Your task to perform on an android device: read, delete, or share a saved page in the chrome app Image 0: 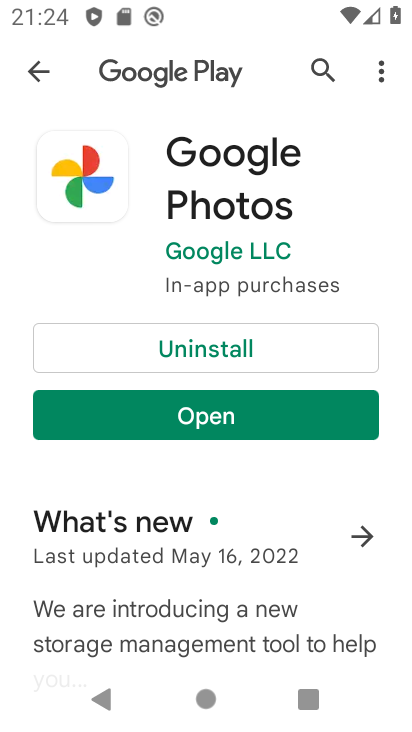
Step 0: press home button
Your task to perform on an android device: read, delete, or share a saved page in the chrome app Image 1: 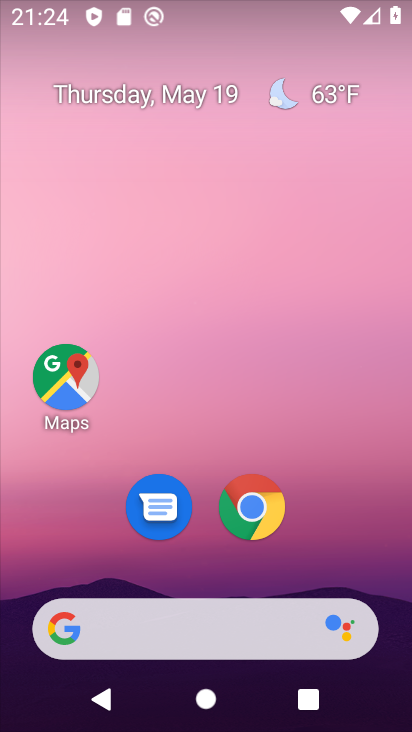
Step 1: click (268, 500)
Your task to perform on an android device: read, delete, or share a saved page in the chrome app Image 2: 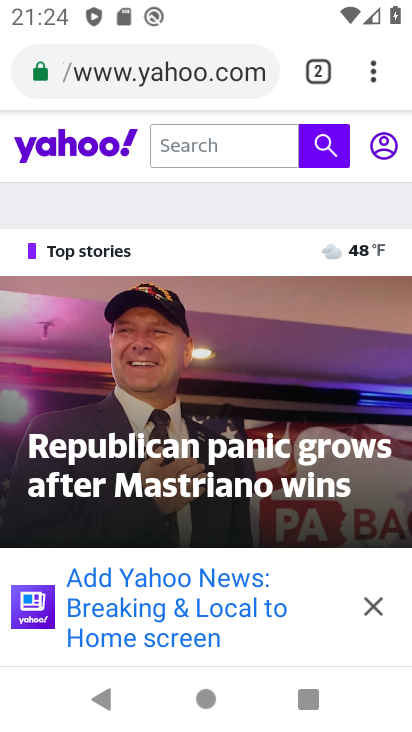
Step 2: click (386, 78)
Your task to perform on an android device: read, delete, or share a saved page in the chrome app Image 3: 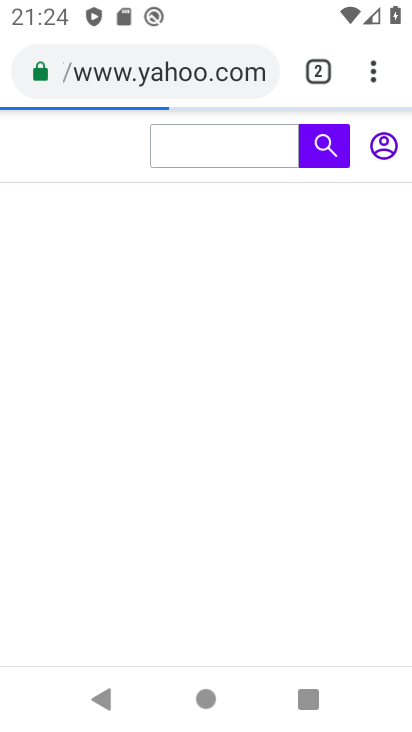
Step 3: click (386, 78)
Your task to perform on an android device: read, delete, or share a saved page in the chrome app Image 4: 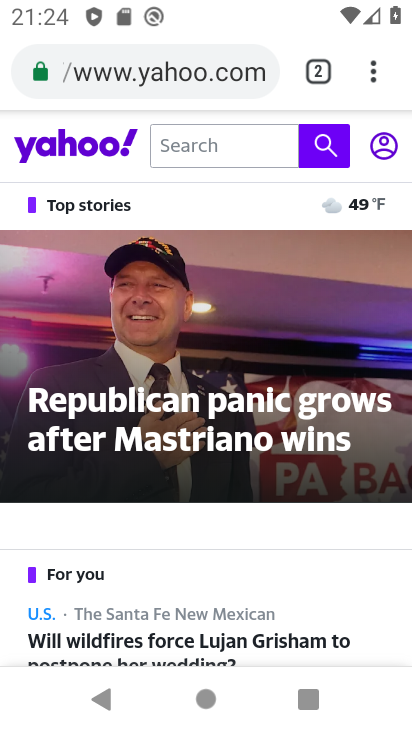
Step 4: drag from (386, 78) to (253, 470)
Your task to perform on an android device: read, delete, or share a saved page in the chrome app Image 5: 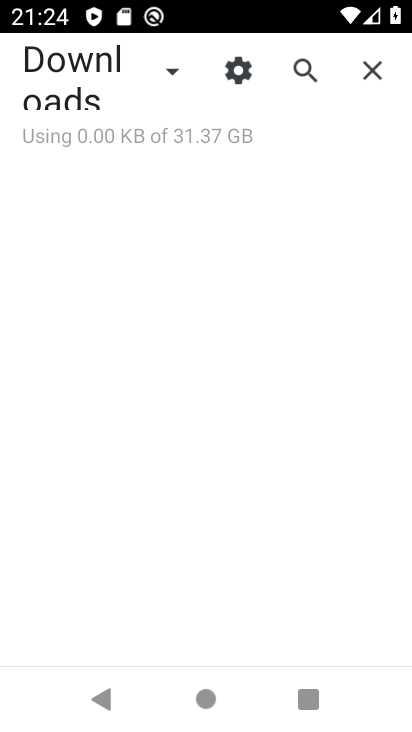
Step 5: click (164, 67)
Your task to perform on an android device: read, delete, or share a saved page in the chrome app Image 6: 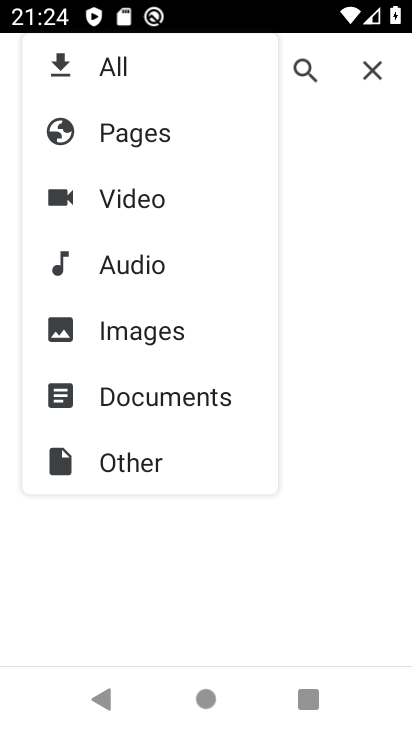
Step 6: click (148, 148)
Your task to perform on an android device: read, delete, or share a saved page in the chrome app Image 7: 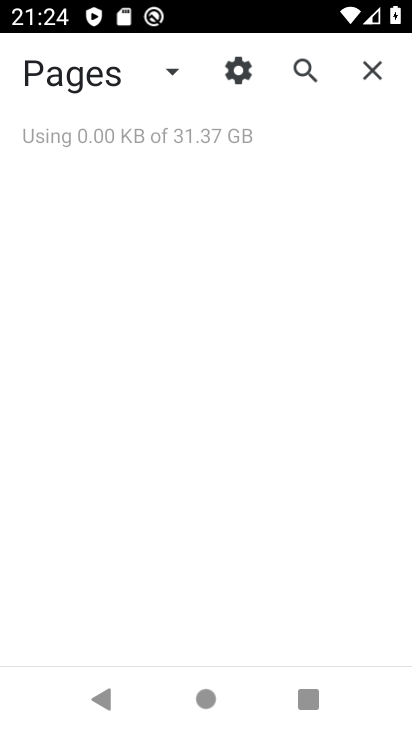
Step 7: task complete